Your task to perform on an android device: Open Google Chrome and open the bookmarks view Image 0: 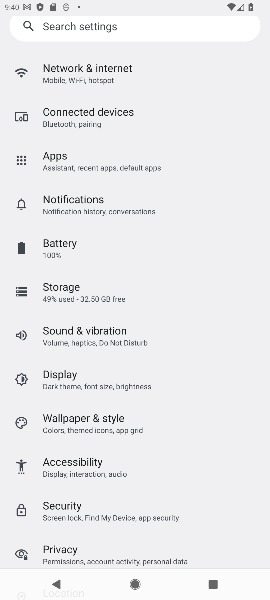
Step 0: task complete